Your task to perform on an android device: turn smart compose on in the gmail app Image 0: 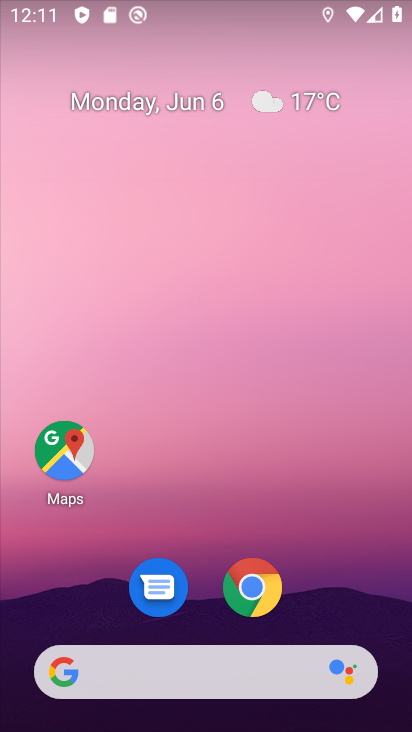
Step 0: drag from (342, 595) to (274, 184)
Your task to perform on an android device: turn smart compose on in the gmail app Image 1: 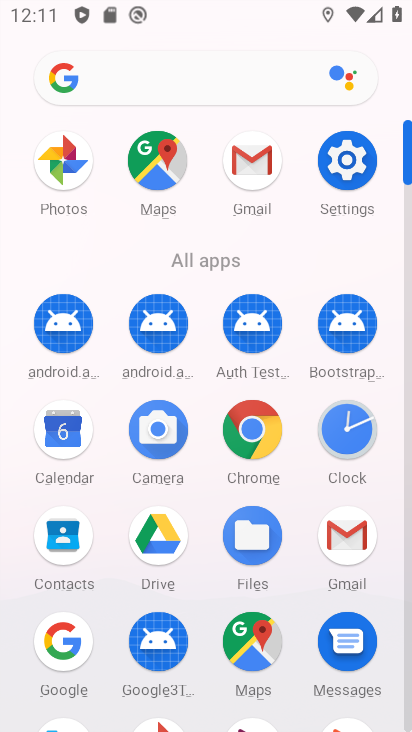
Step 1: click (259, 162)
Your task to perform on an android device: turn smart compose on in the gmail app Image 2: 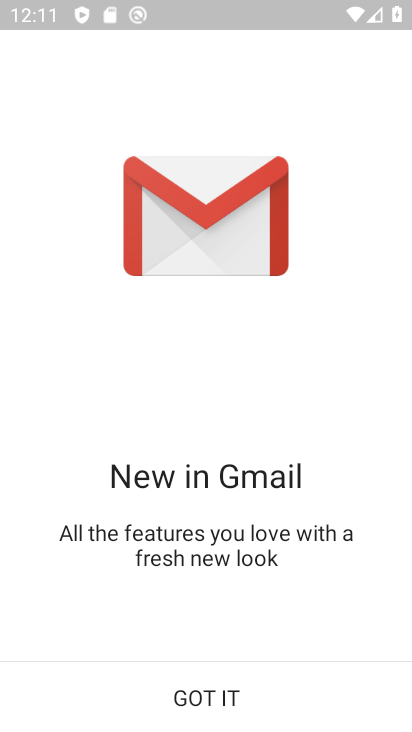
Step 2: click (208, 690)
Your task to perform on an android device: turn smart compose on in the gmail app Image 3: 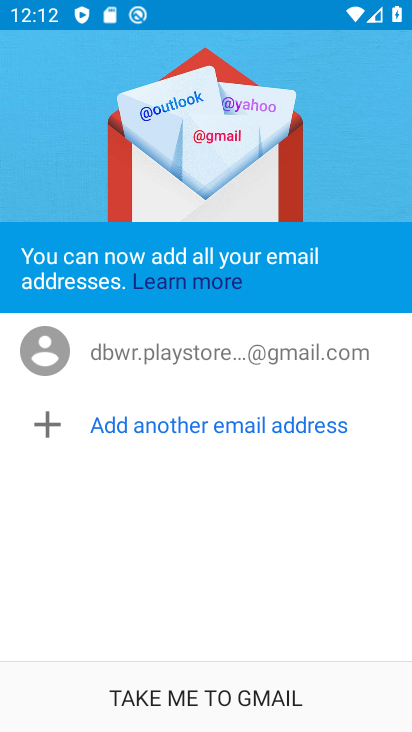
Step 3: click (208, 690)
Your task to perform on an android device: turn smart compose on in the gmail app Image 4: 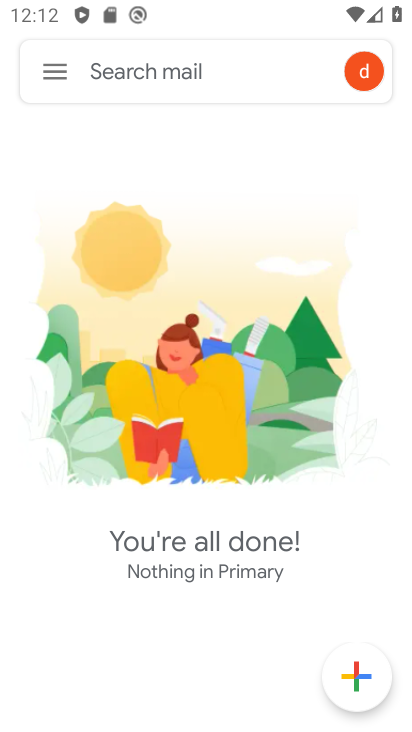
Step 4: click (55, 83)
Your task to perform on an android device: turn smart compose on in the gmail app Image 5: 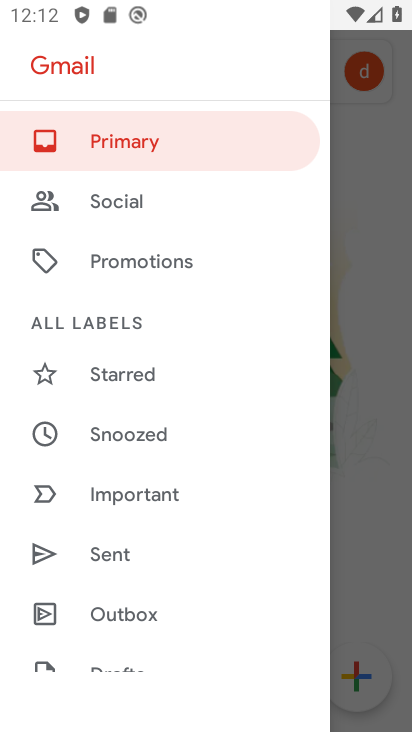
Step 5: drag from (165, 657) to (129, 214)
Your task to perform on an android device: turn smart compose on in the gmail app Image 6: 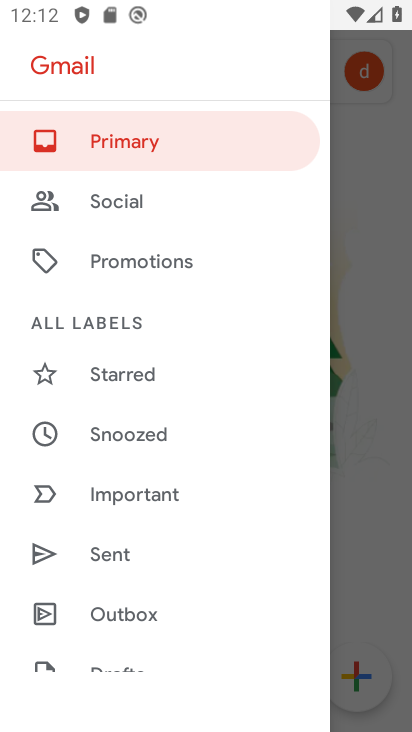
Step 6: drag from (118, 656) to (121, 211)
Your task to perform on an android device: turn smart compose on in the gmail app Image 7: 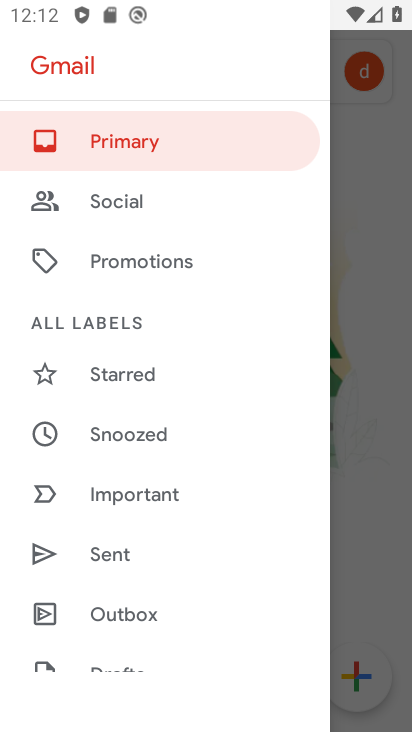
Step 7: drag from (133, 632) to (132, 242)
Your task to perform on an android device: turn smart compose on in the gmail app Image 8: 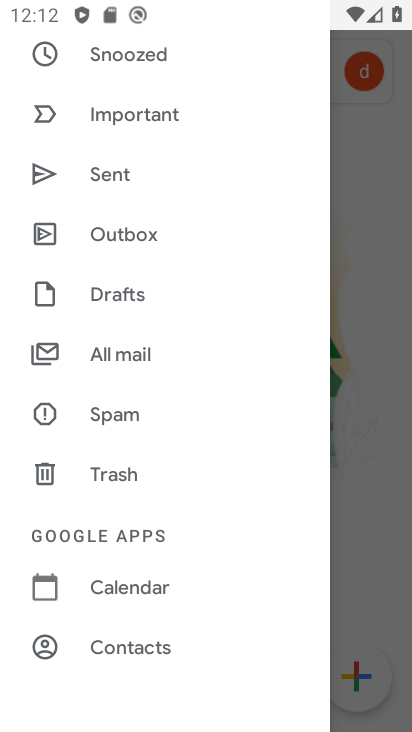
Step 8: drag from (115, 617) to (110, 319)
Your task to perform on an android device: turn smart compose on in the gmail app Image 9: 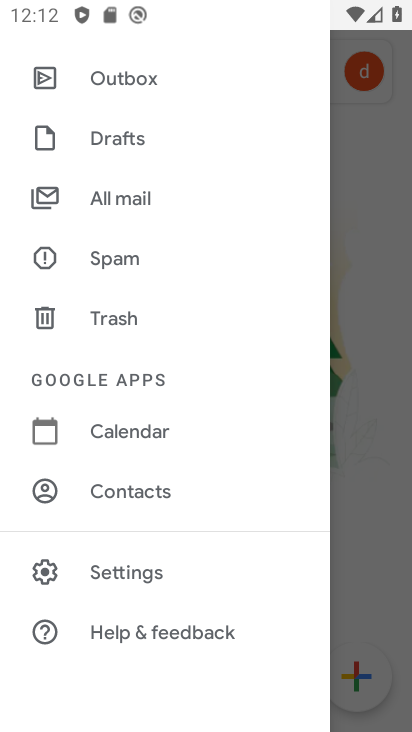
Step 9: click (143, 574)
Your task to perform on an android device: turn smart compose on in the gmail app Image 10: 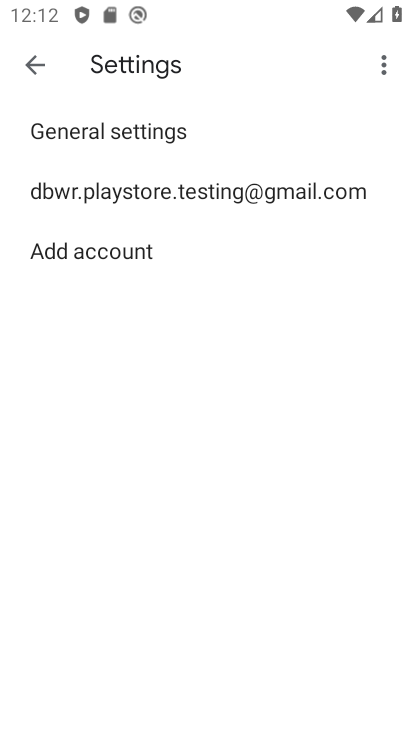
Step 10: click (248, 201)
Your task to perform on an android device: turn smart compose on in the gmail app Image 11: 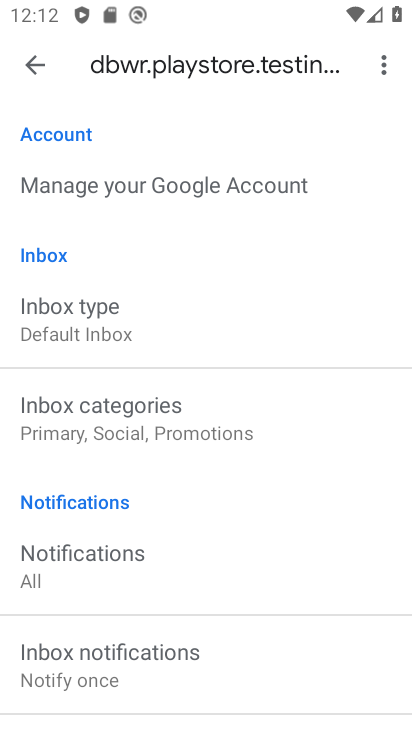
Step 11: task complete